Your task to perform on an android device: turn off data saver in the chrome app Image 0: 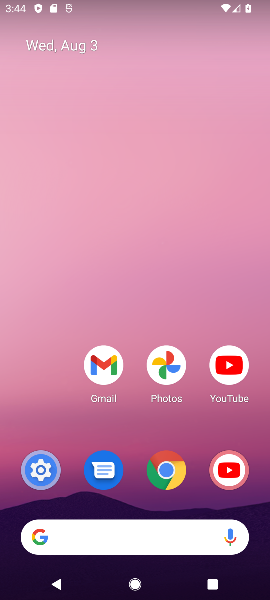
Step 0: press home button
Your task to perform on an android device: turn off data saver in the chrome app Image 1: 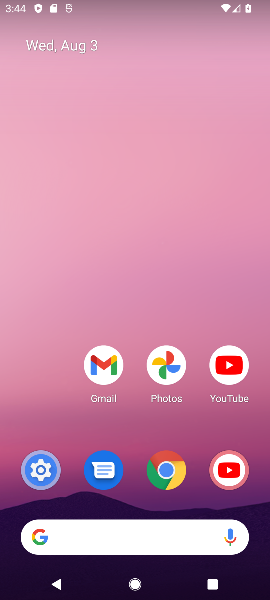
Step 1: click (164, 468)
Your task to perform on an android device: turn off data saver in the chrome app Image 2: 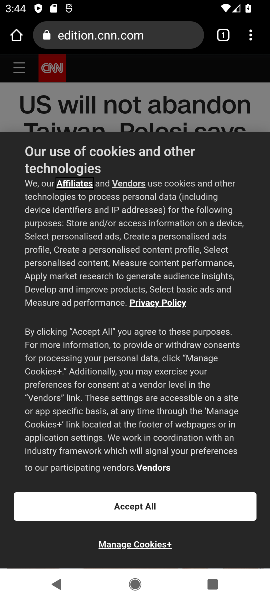
Step 2: drag from (252, 33) to (184, 454)
Your task to perform on an android device: turn off data saver in the chrome app Image 3: 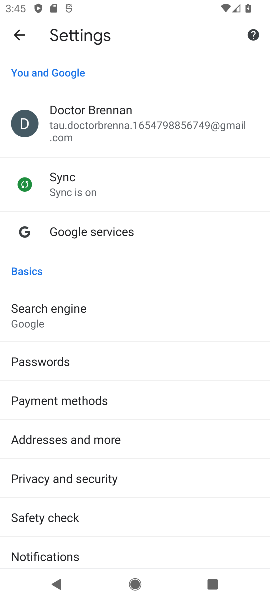
Step 3: drag from (152, 536) to (199, 192)
Your task to perform on an android device: turn off data saver in the chrome app Image 4: 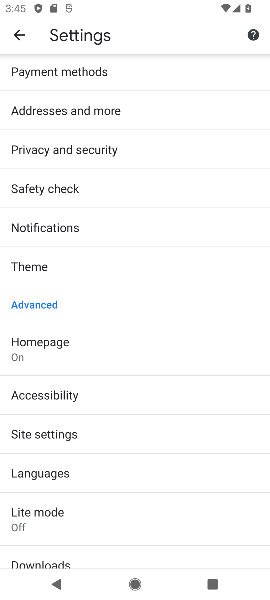
Step 4: drag from (119, 538) to (163, 282)
Your task to perform on an android device: turn off data saver in the chrome app Image 5: 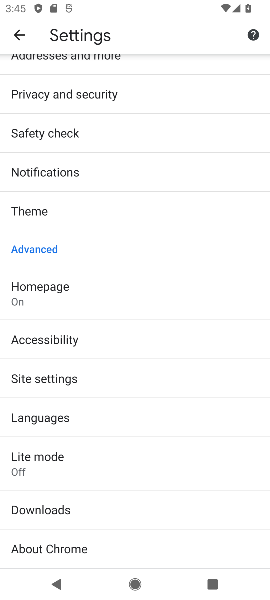
Step 5: click (130, 474)
Your task to perform on an android device: turn off data saver in the chrome app Image 6: 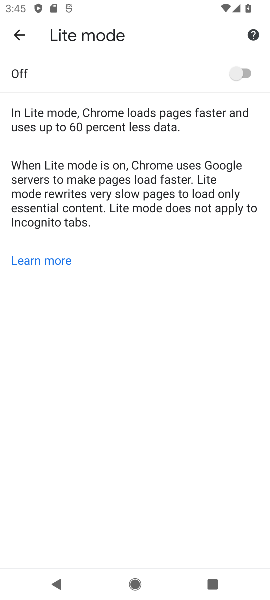
Step 6: task complete